Your task to perform on an android device: change the clock style Image 0: 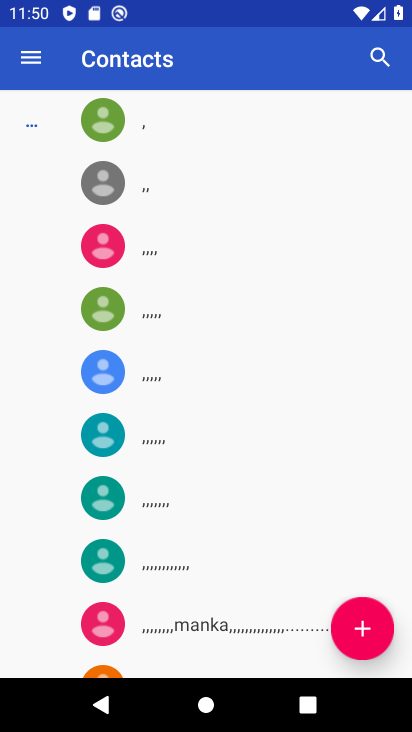
Step 0: press home button
Your task to perform on an android device: change the clock style Image 1: 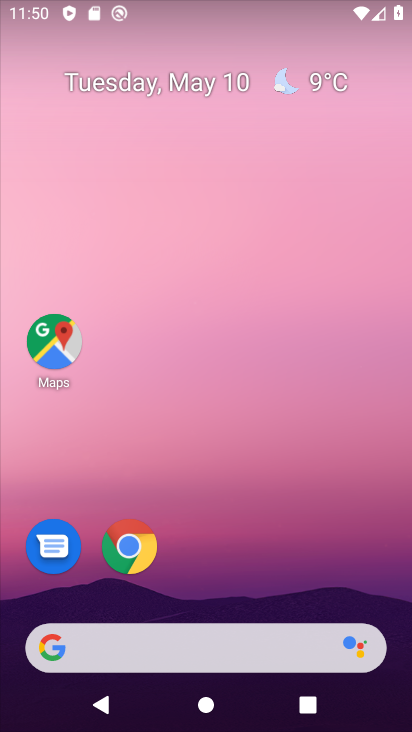
Step 1: drag from (200, 607) to (237, 73)
Your task to perform on an android device: change the clock style Image 2: 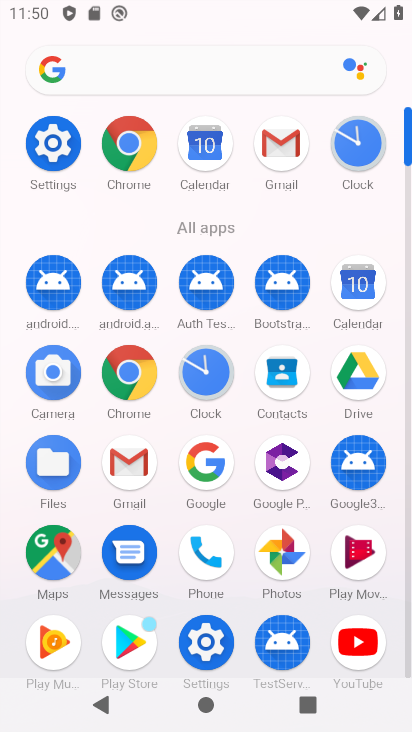
Step 2: click (357, 151)
Your task to perform on an android device: change the clock style Image 3: 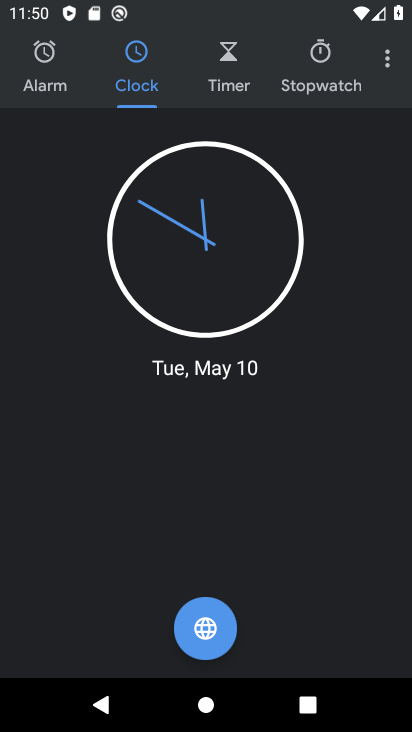
Step 3: click (385, 55)
Your task to perform on an android device: change the clock style Image 4: 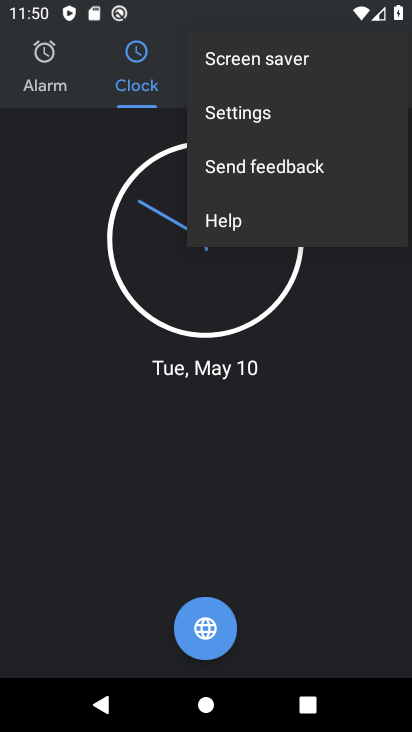
Step 4: click (231, 119)
Your task to perform on an android device: change the clock style Image 5: 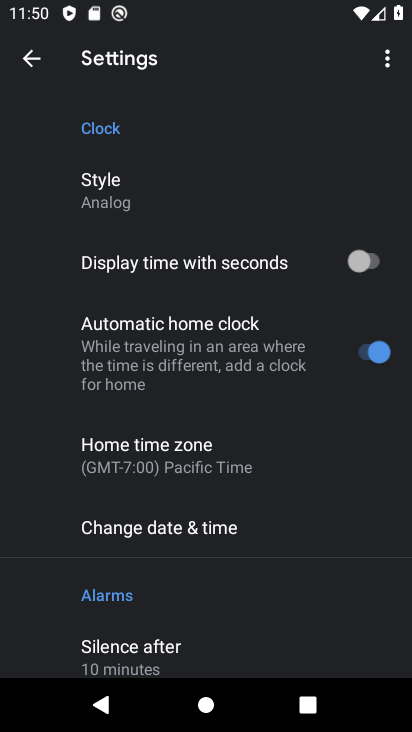
Step 5: click (141, 190)
Your task to perform on an android device: change the clock style Image 6: 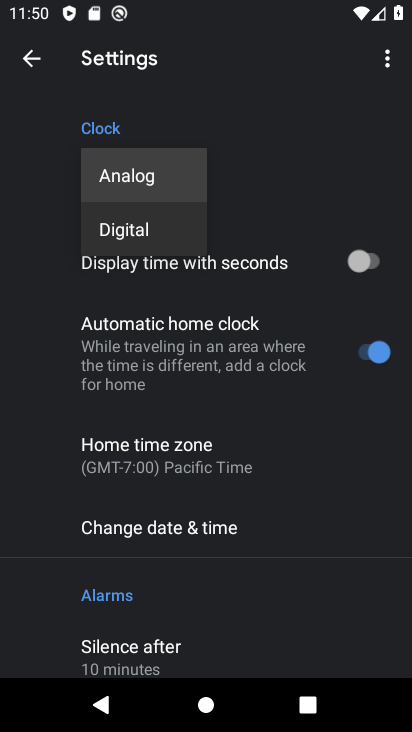
Step 6: click (156, 236)
Your task to perform on an android device: change the clock style Image 7: 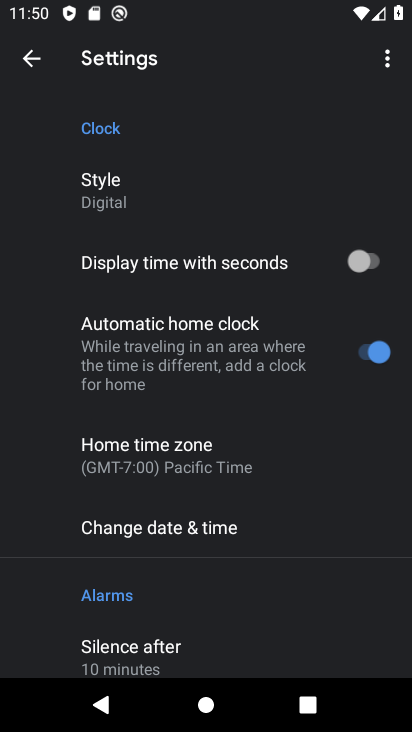
Step 7: task complete